Your task to perform on an android device: Open settings Image 0: 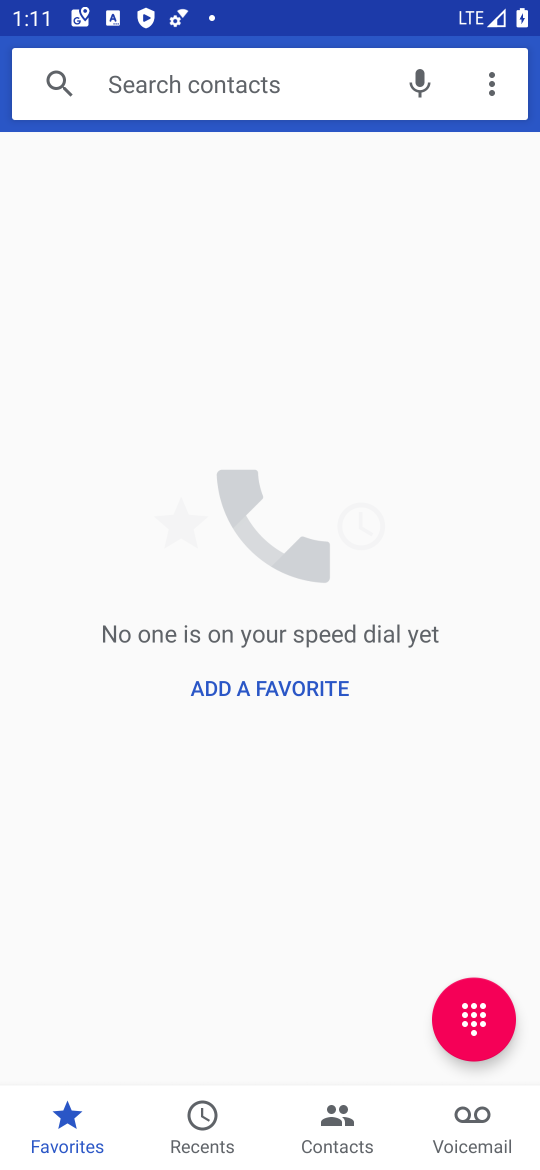
Step 0: press home button
Your task to perform on an android device: Open settings Image 1: 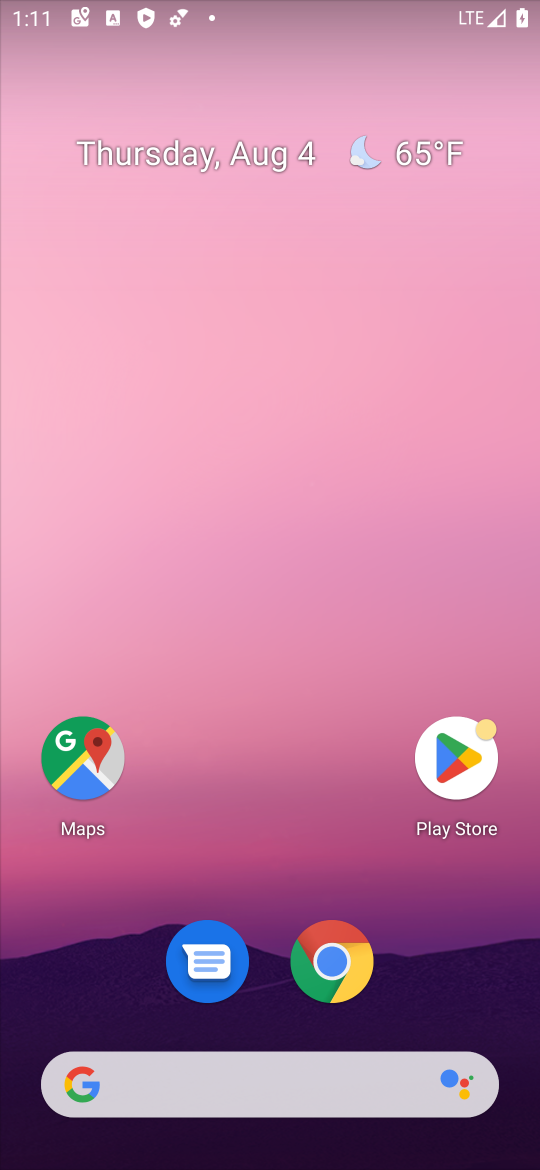
Step 1: drag from (315, 807) to (350, 5)
Your task to perform on an android device: Open settings Image 2: 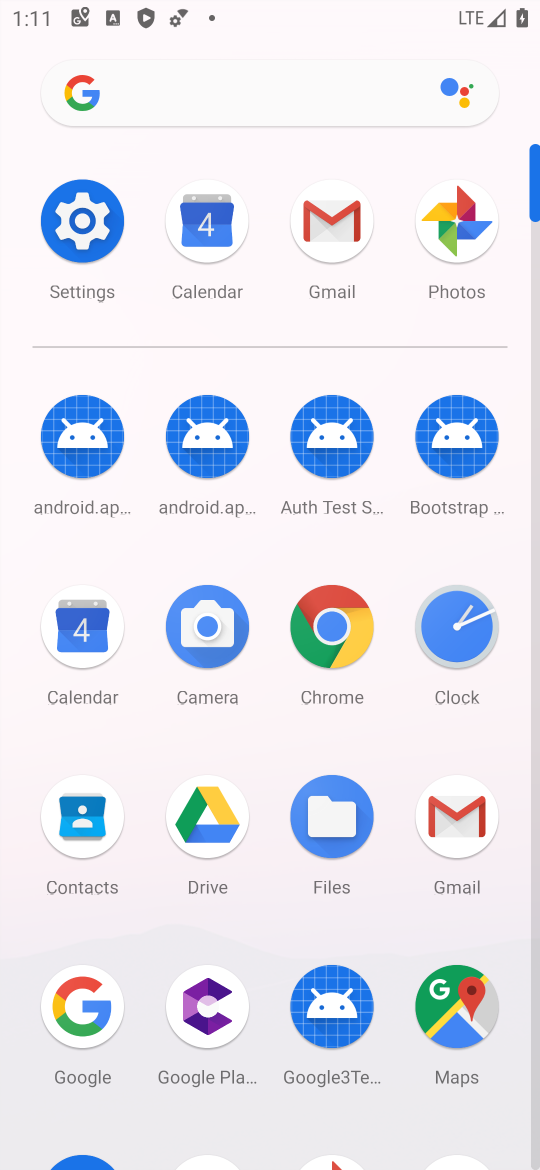
Step 2: click (84, 221)
Your task to perform on an android device: Open settings Image 3: 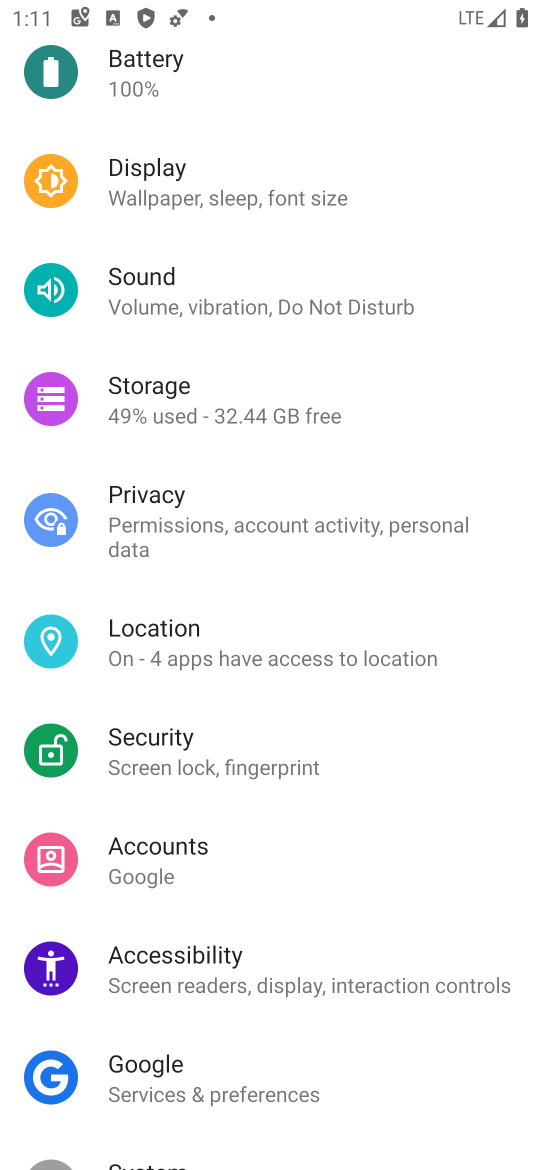
Step 3: task complete